Your task to perform on an android device: change text size in settings app Image 0: 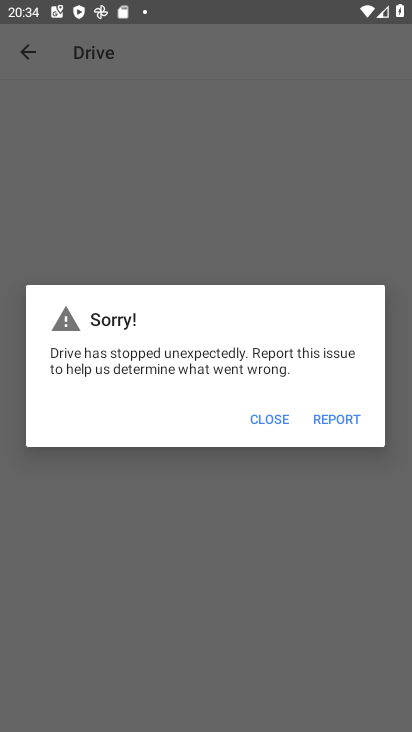
Step 0: press home button
Your task to perform on an android device: change text size in settings app Image 1: 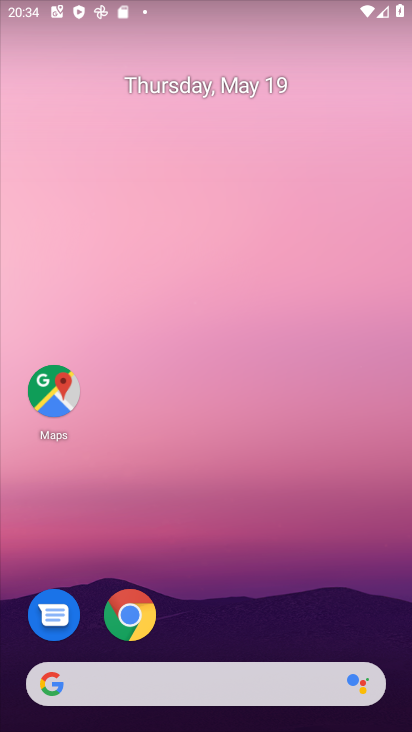
Step 1: drag from (215, 554) to (239, 58)
Your task to perform on an android device: change text size in settings app Image 2: 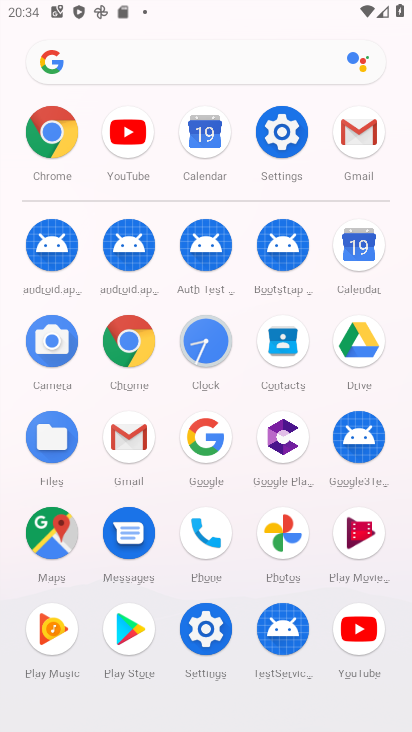
Step 2: click (276, 133)
Your task to perform on an android device: change text size in settings app Image 3: 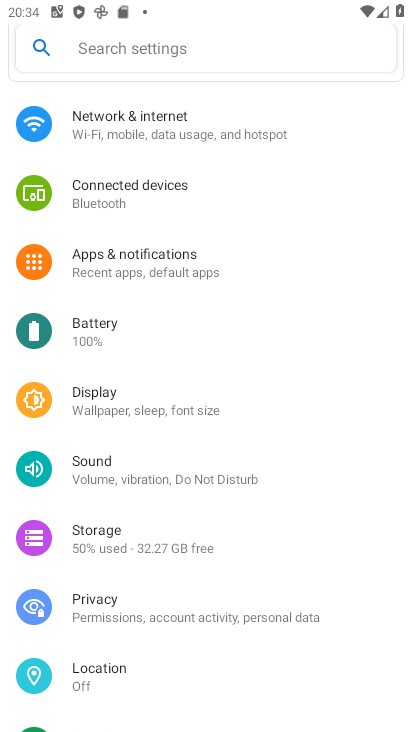
Step 3: click (144, 396)
Your task to perform on an android device: change text size in settings app Image 4: 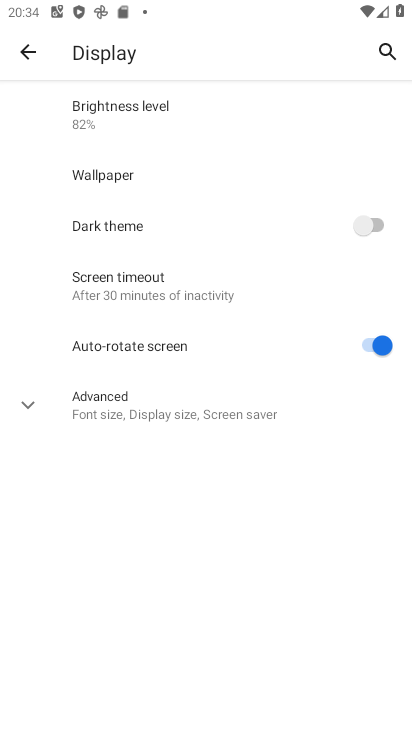
Step 4: click (134, 400)
Your task to perform on an android device: change text size in settings app Image 5: 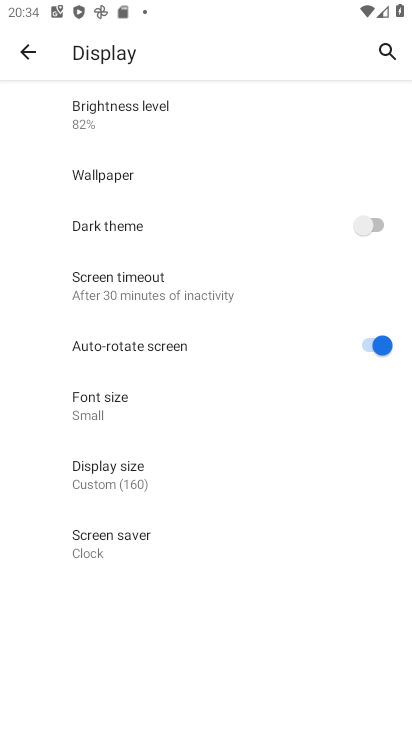
Step 5: click (111, 407)
Your task to perform on an android device: change text size in settings app Image 6: 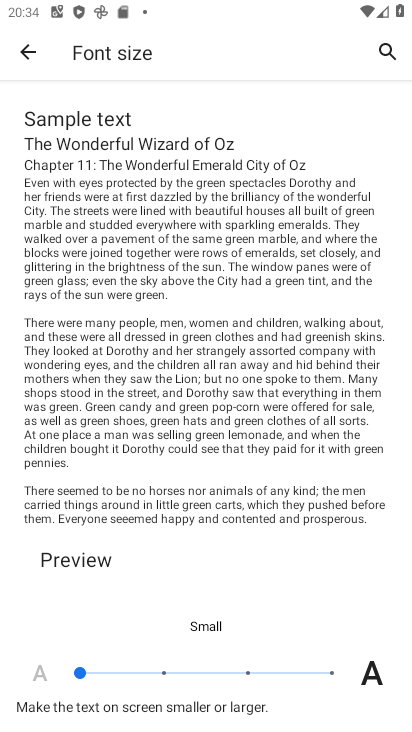
Step 6: task complete